Your task to perform on an android device: turn off notifications in google photos Image 0: 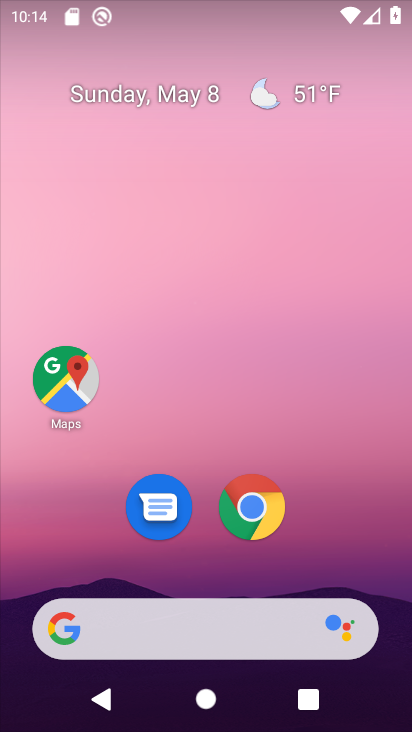
Step 0: drag from (201, 577) to (191, 149)
Your task to perform on an android device: turn off notifications in google photos Image 1: 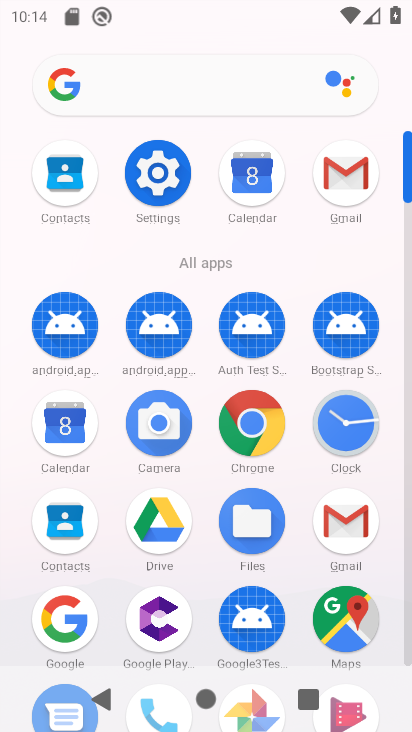
Step 1: drag from (200, 587) to (209, 185)
Your task to perform on an android device: turn off notifications in google photos Image 2: 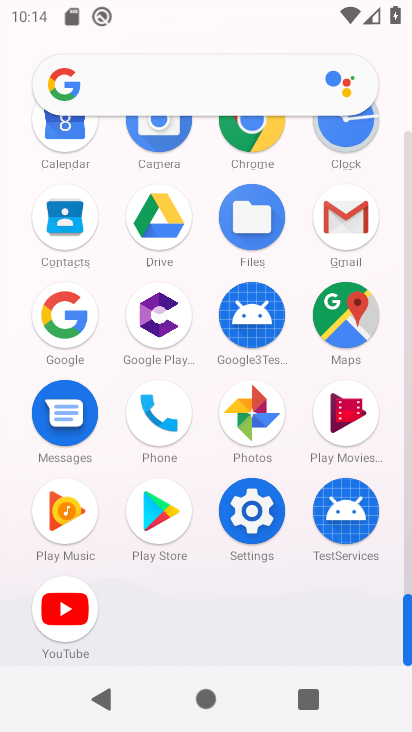
Step 2: click (248, 405)
Your task to perform on an android device: turn off notifications in google photos Image 3: 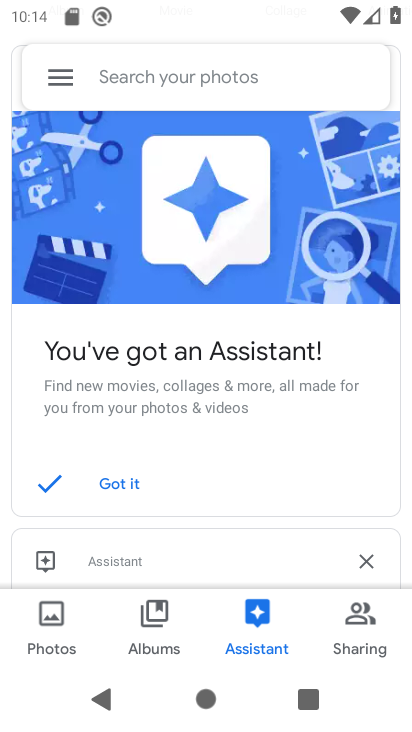
Step 3: click (53, 75)
Your task to perform on an android device: turn off notifications in google photos Image 4: 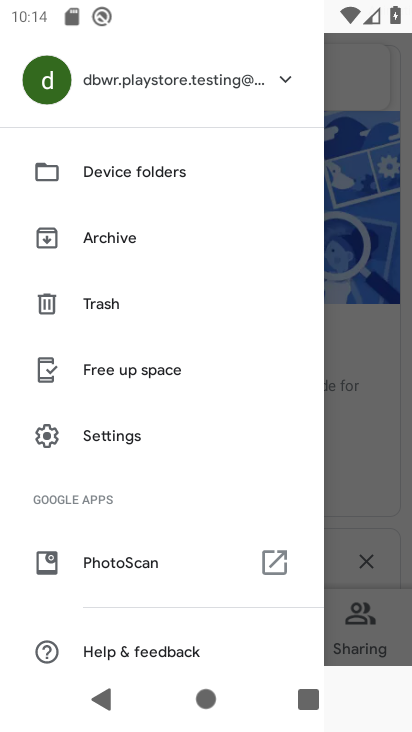
Step 4: click (148, 431)
Your task to perform on an android device: turn off notifications in google photos Image 5: 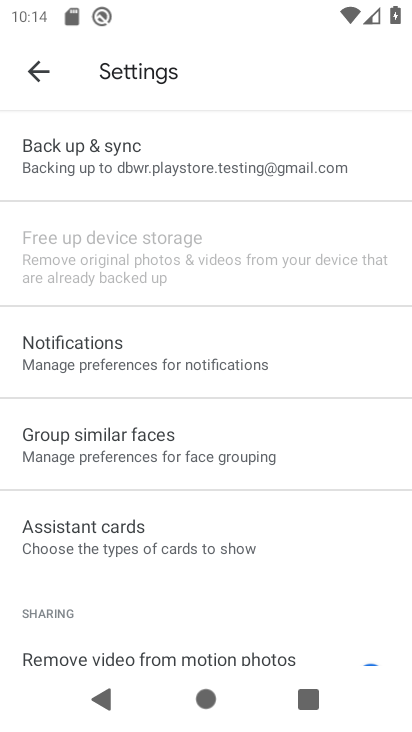
Step 5: click (135, 347)
Your task to perform on an android device: turn off notifications in google photos Image 6: 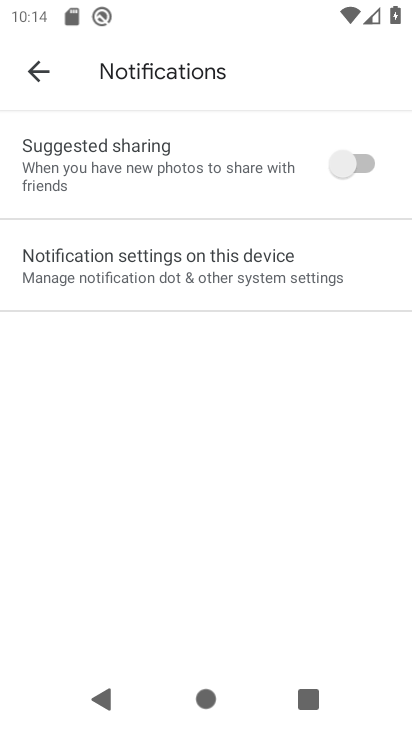
Step 6: click (223, 288)
Your task to perform on an android device: turn off notifications in google photos Image 7: 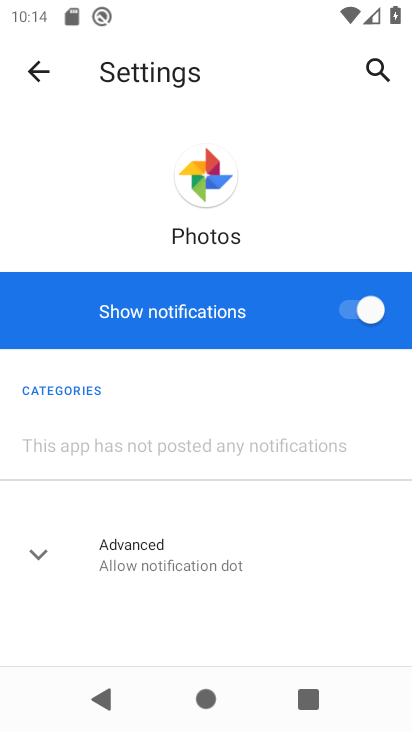
Step 7: click (350, 306)
Your task to perform on an android device: turn off notifications in google photos Image 8: 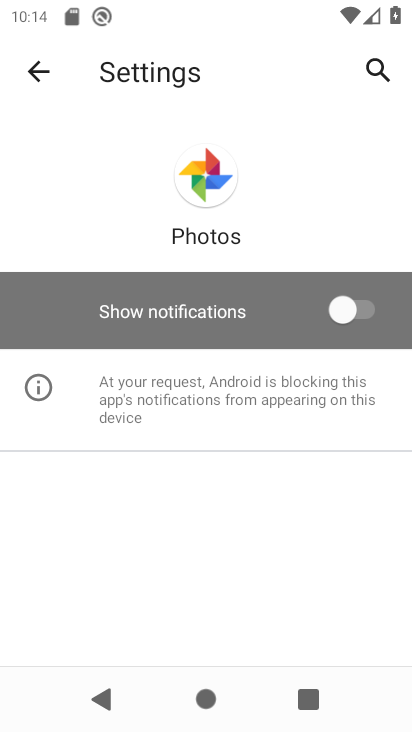
Step 8: task complete